Your task to perform on an android device: What's the weather today? Image 0: 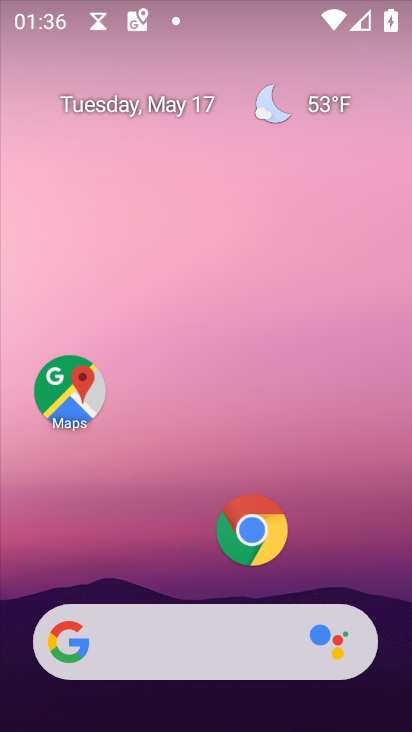
Step 0: click (308, 113)
Your task to perform on an android device: What's the weather today? Image 1: 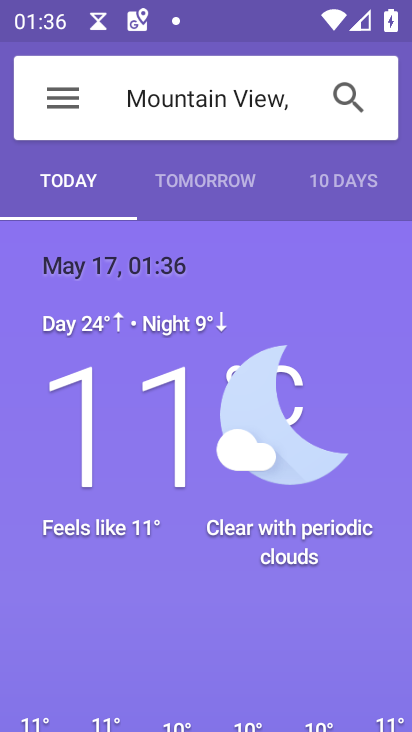
Step 1: task complete